Your task to perform on an android device: turn off airplane mode Image 0: 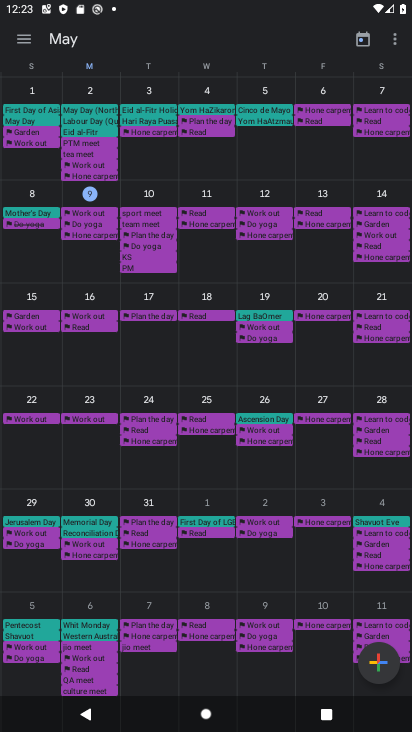
Step 0: task complete